Your task to perform on an android device: Open notification settings Image 0: 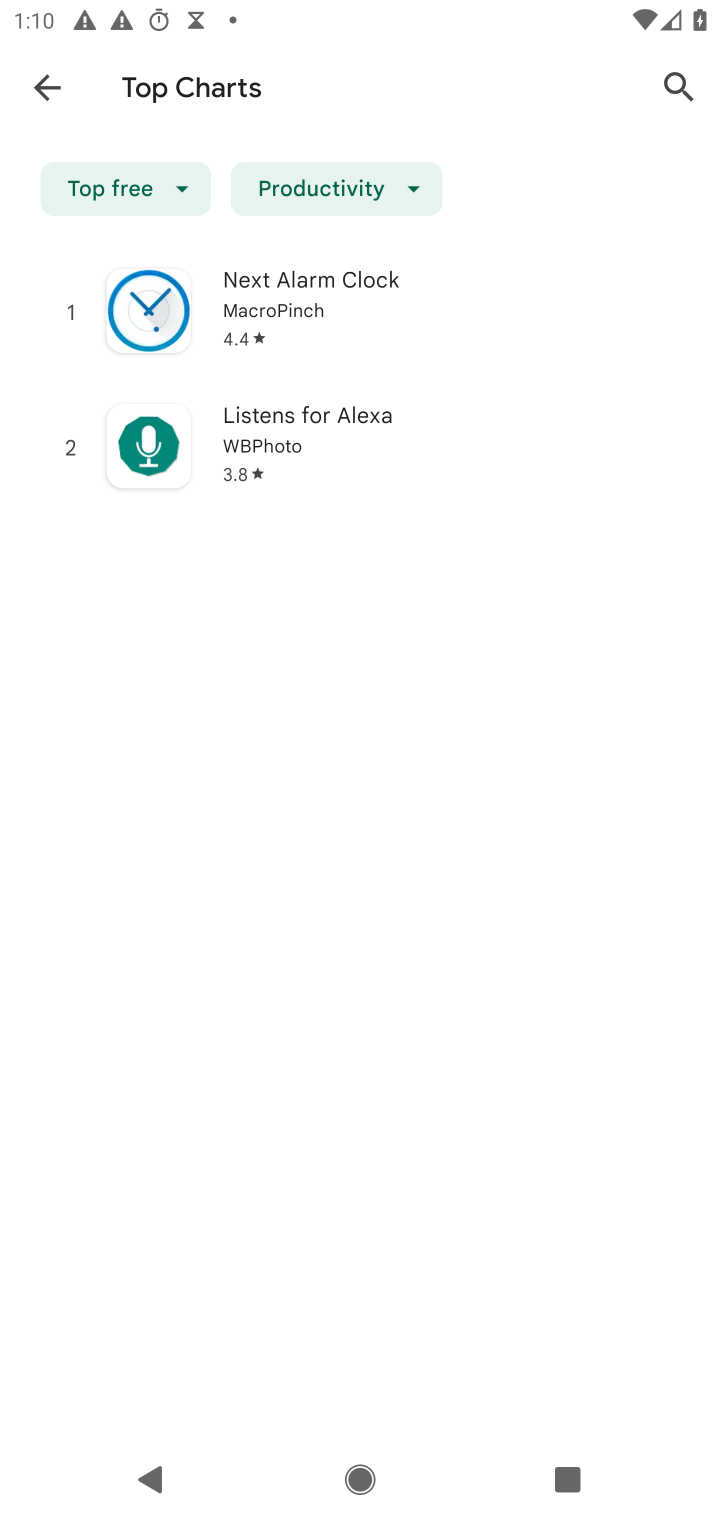
Step 0: press home button
Your task to perform on an android device: Open notification settings Image 1: 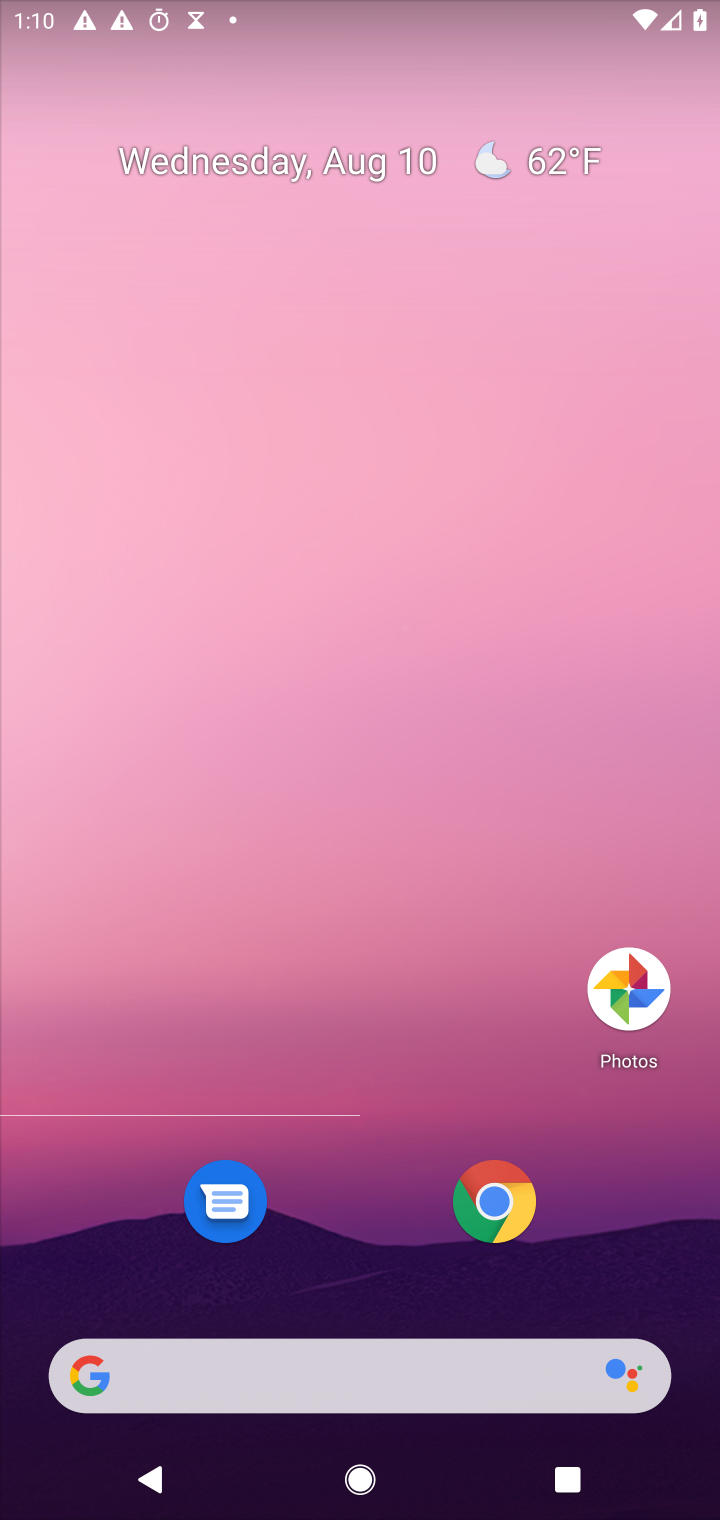
Step 1: drag from (305, 979) to (255, 86)
Your task to perform on an android device: Open notification settings Image 2: 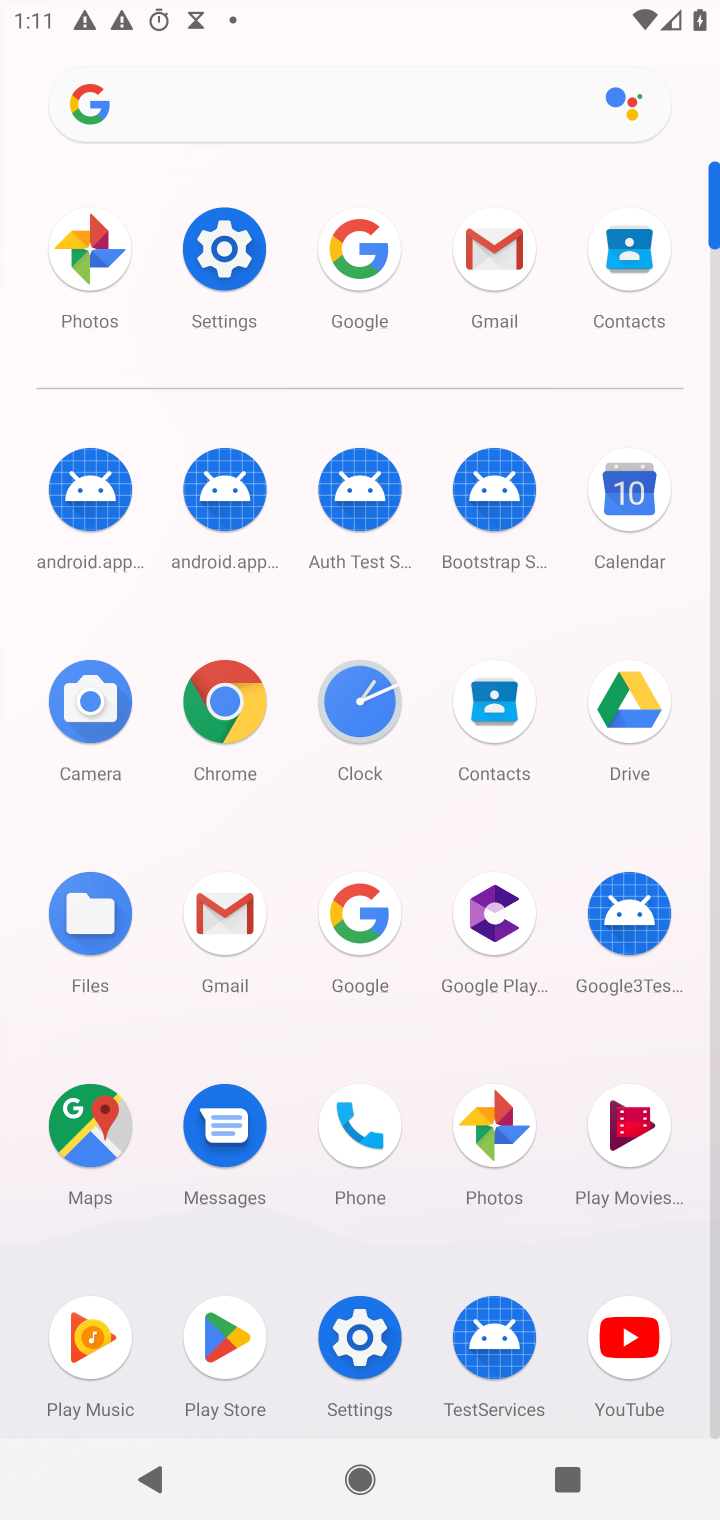
Step 2: click (205, 249)
Your task to perform on an android device: Open notification settings Image 3: 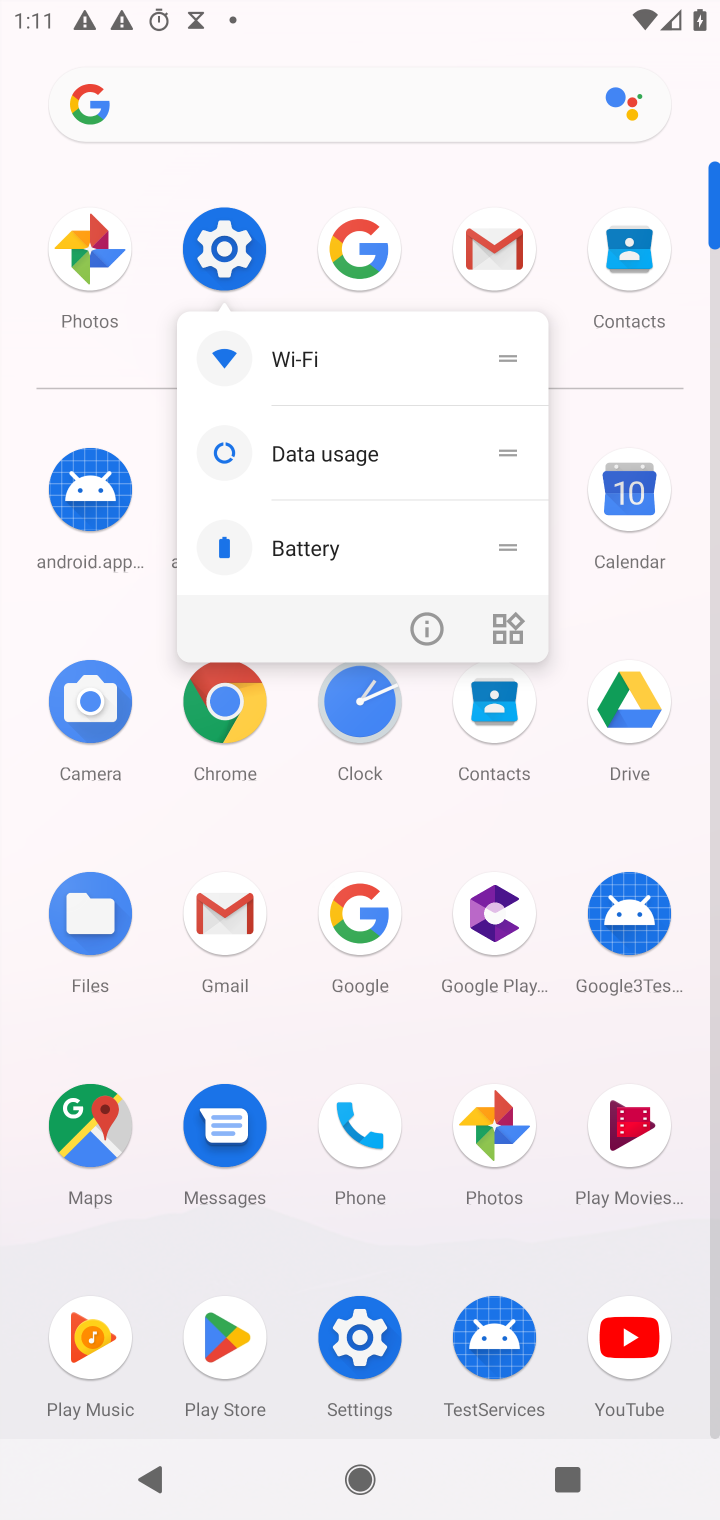
Step 3: click (205, 249)
Your task to perform on an android device: Open notification settings Image 4: 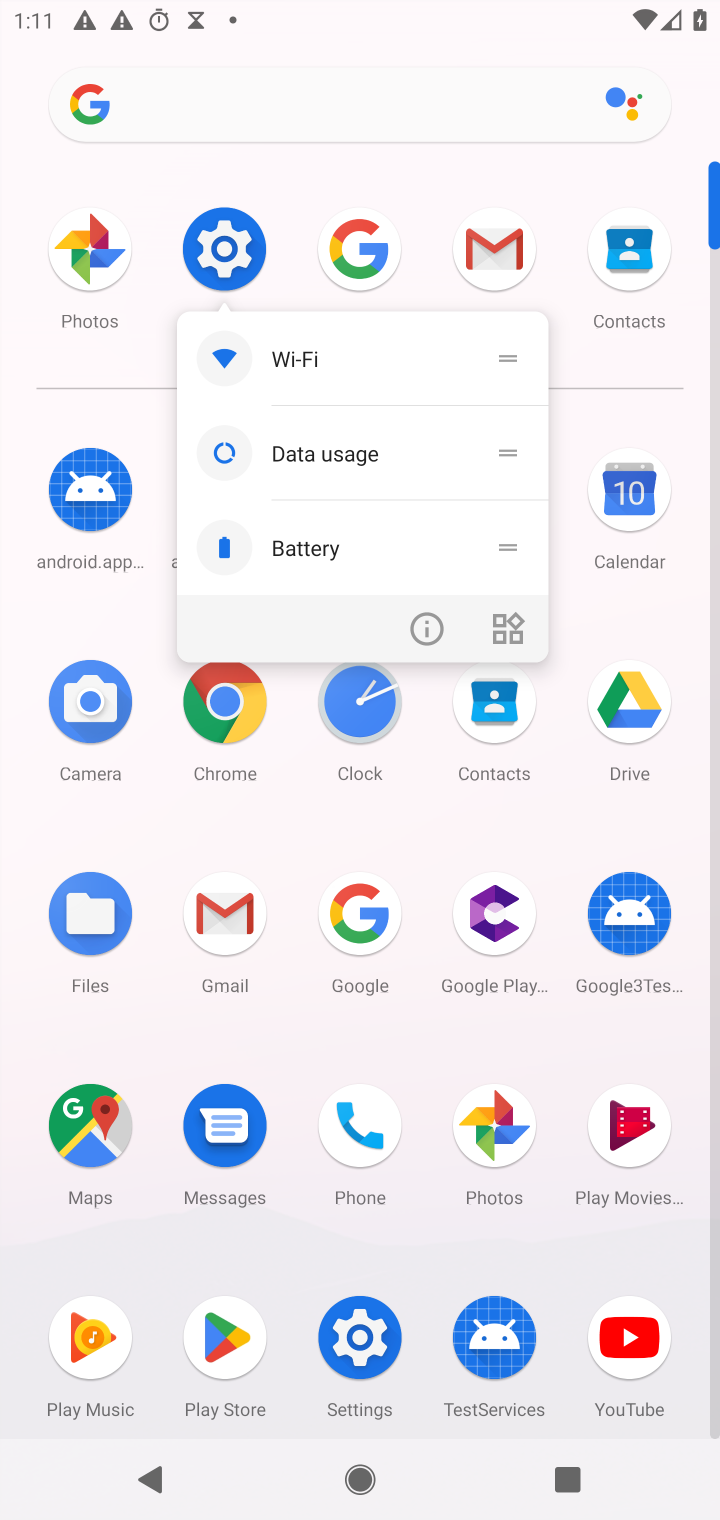
Step 4: click (233, 234)
Your task to perform on an android device: Open notification settings Image 5: 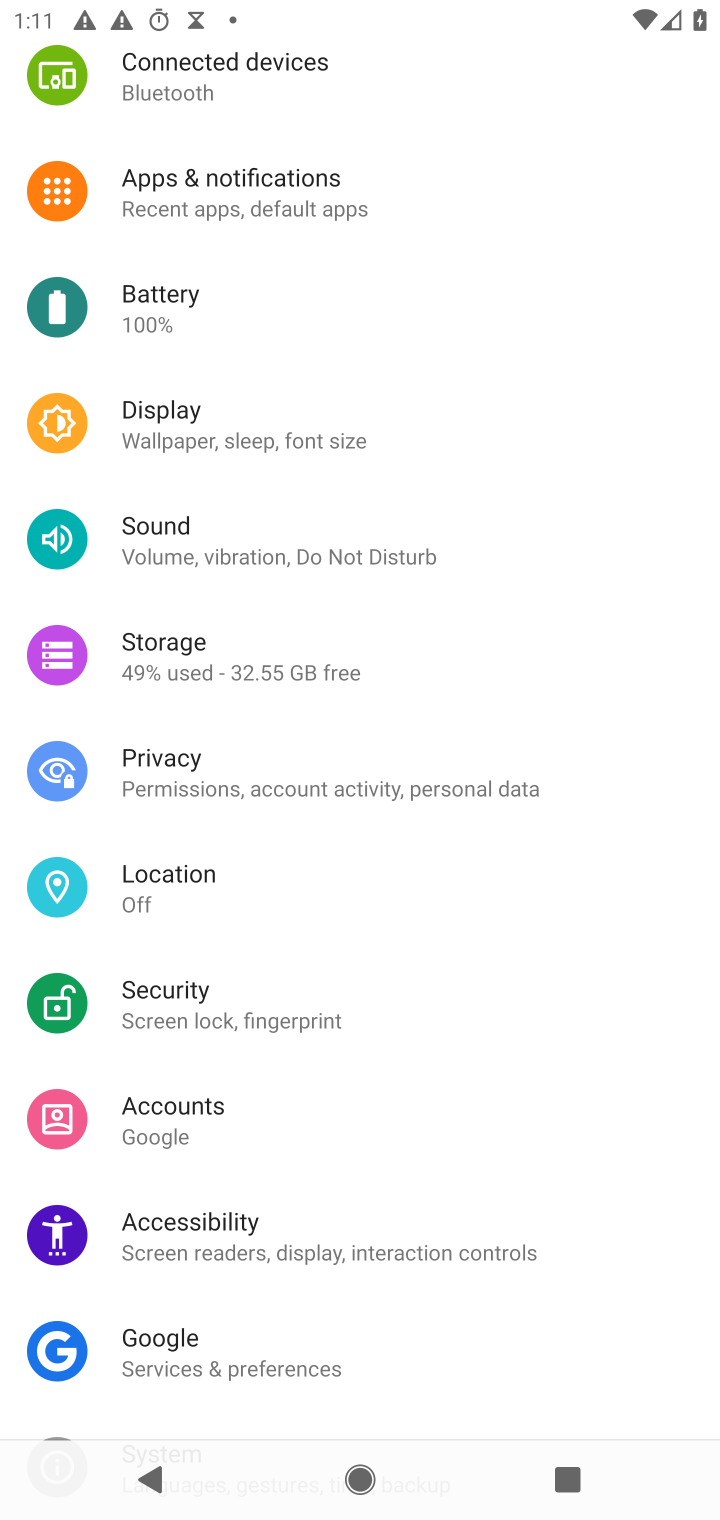
Step 5: click (269, 190)
Your task to perform on an android device: Open notification settings Image 6: 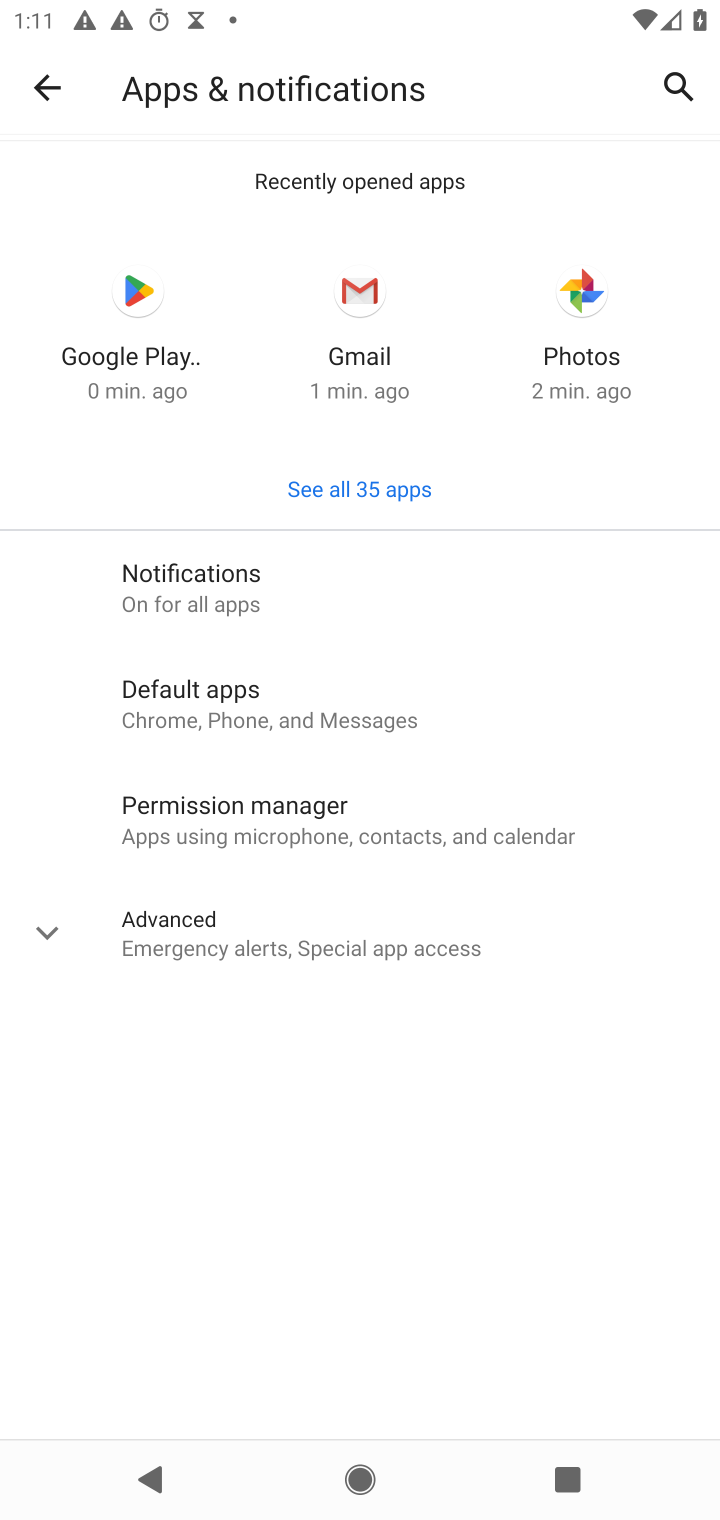
Step 6: click (209, 597)
Your task to perform on an android device: Open notification settings Image 7: 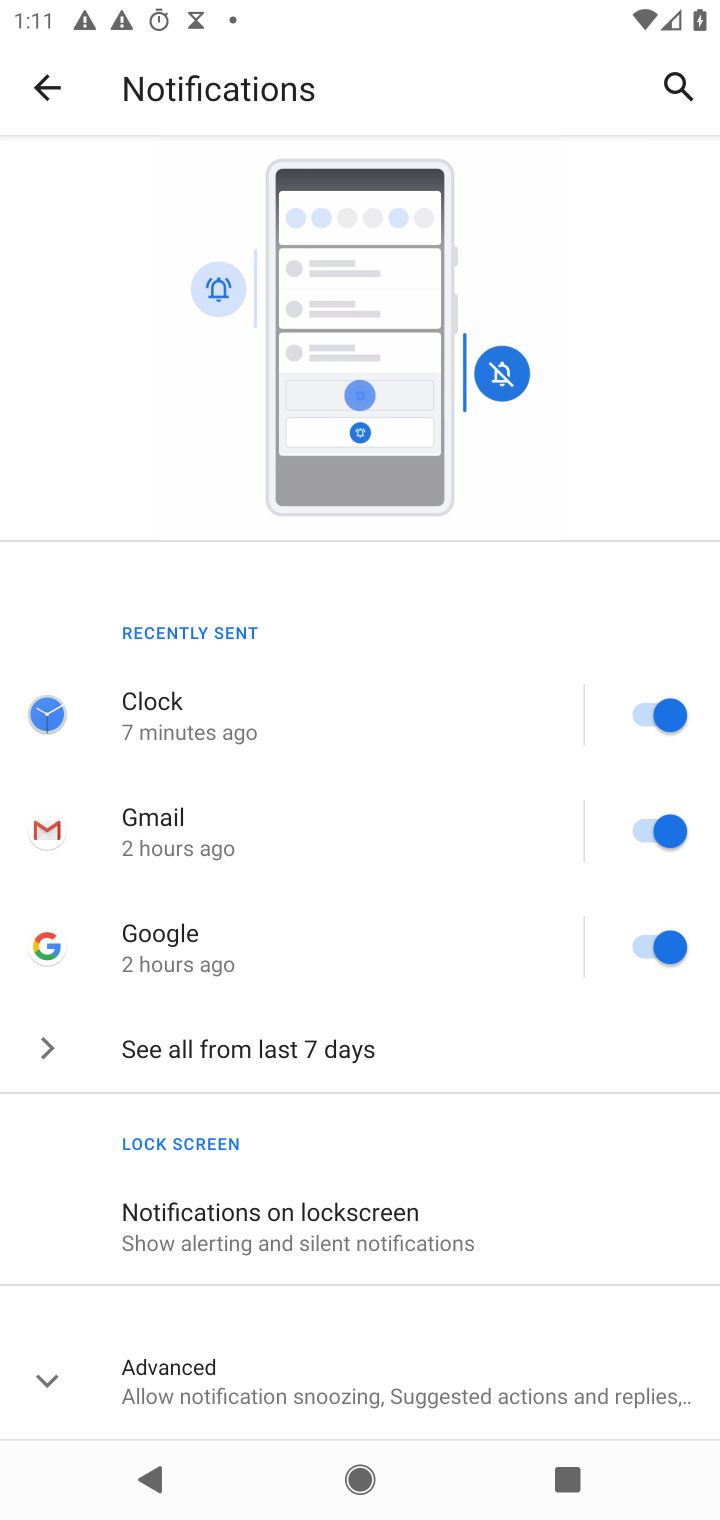
Step 7: task complete